Your task to perform on an android device: set the timer Image 0: 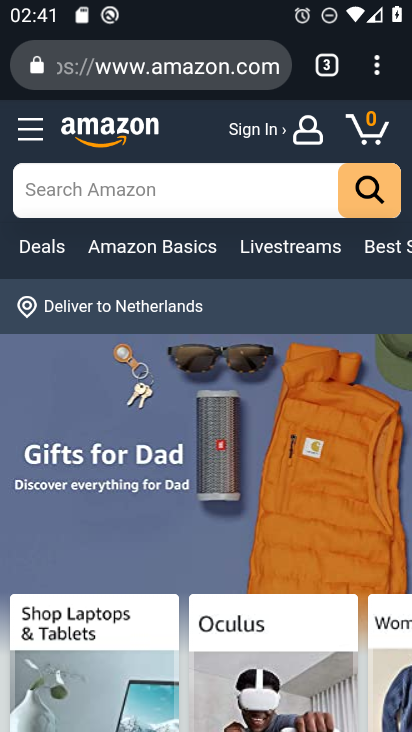
Step 0: press home button
Your task to perform on an android device: set the timer Image 1: 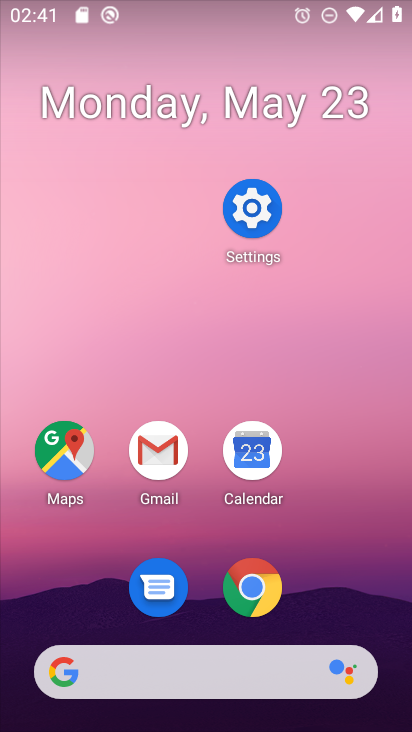
Step 1: drag from (317, 621) to (332, 114)
Your task to perform on an android device: set the timer Image 2: 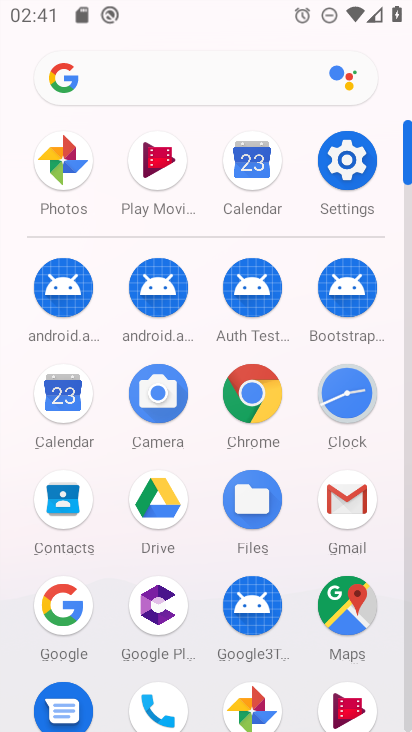
Step 2: drag from (347, 423) to (206, 335)
Your task to perform on an android device: set the timer Image 3: 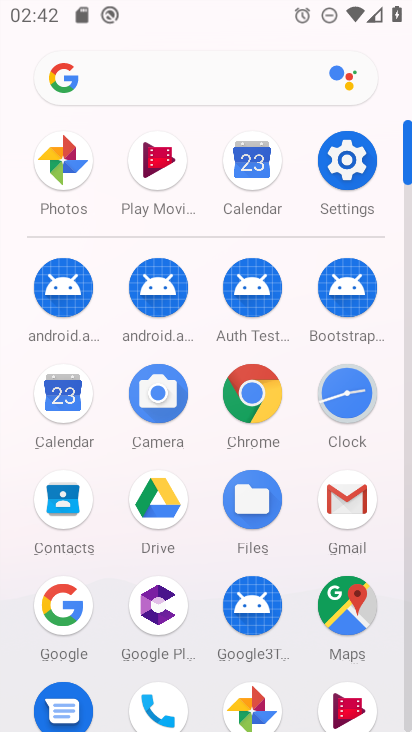
Step 3: drag from (354, 400) to (214, 354)
Your task to perform on an android device: set the timer Image 4: 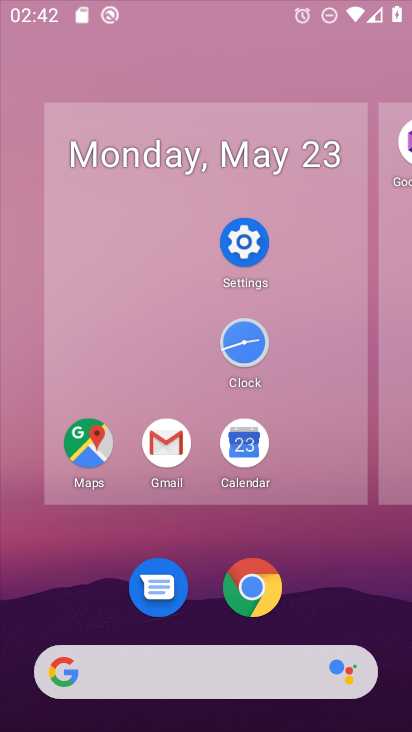
Step 4: click (214, 354)
Your task to perform on an android device: set the timer Image 5: 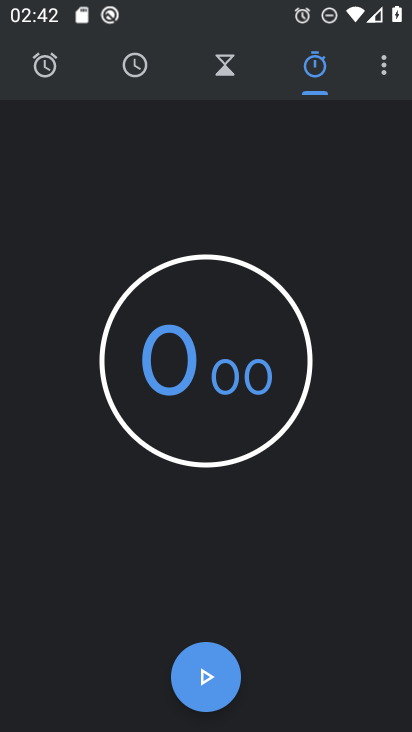
Step 5: click (240, 70)
Your task to perform on an android device: set the timer Image 6: 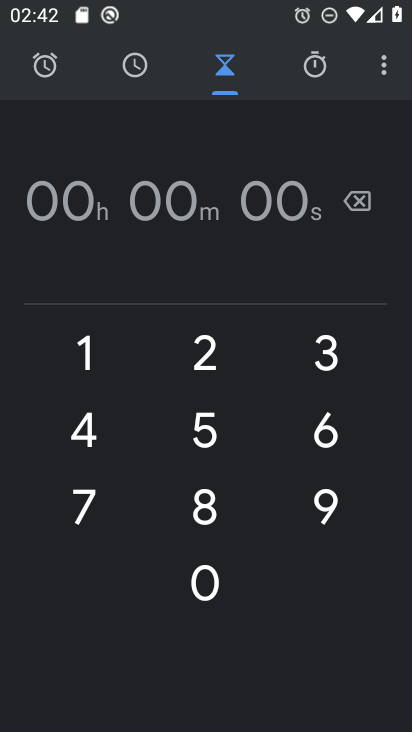
Step 6: task complete